Your task to perform on an android device: Go to internet settings Image 0: 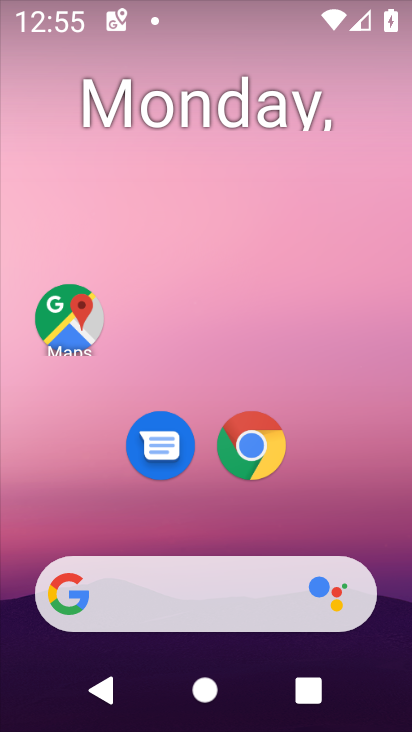
Step 0: drag from (395, 437) to (200, 7)
Your task to perform on an android device: Go to internet settings Image 1: 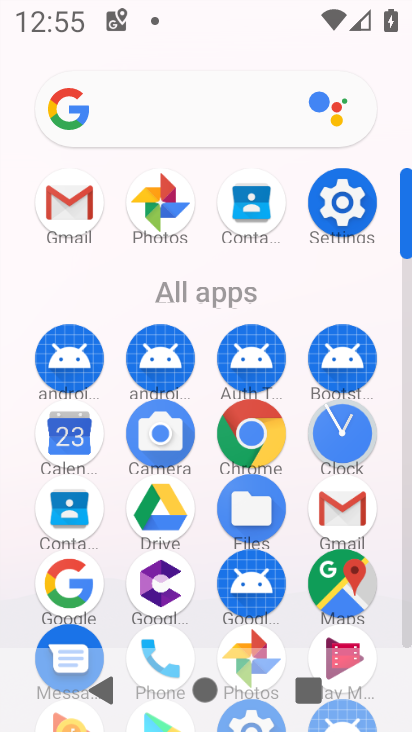
Step 1: click (341, 205)
Your task to perform on an android device: Go to internet settings Image 2: 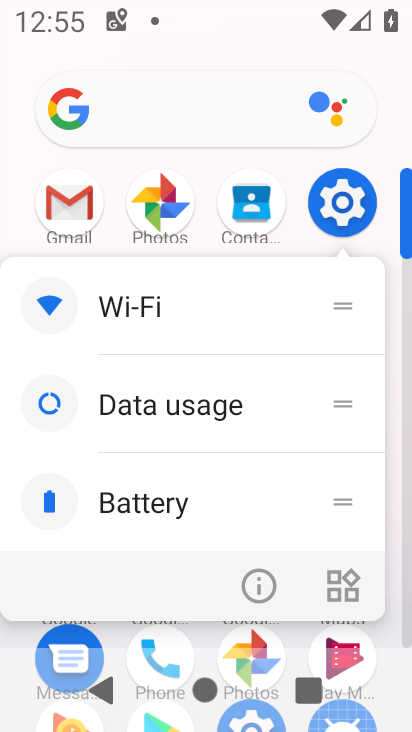
Step 2: click (342, 203)
Your task to perform on an android device: Go to internet settings Image 3: 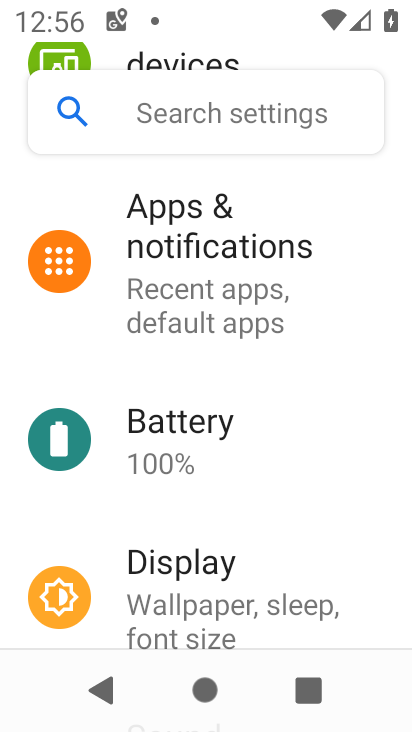
Step 3: drag from (279, 354) to (310, 698)
Your task to perform on an android device: Go to internet settings Image 4: 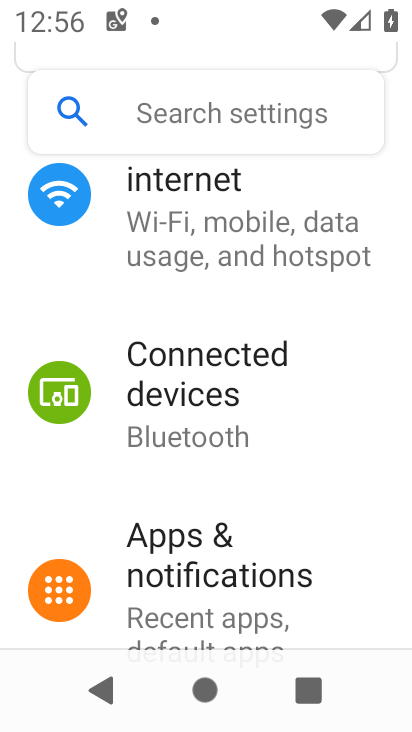
Step 4: drag from (306, 304) to (280, 400)
Your task to perform on an android device: Go to internet settings Image 5: 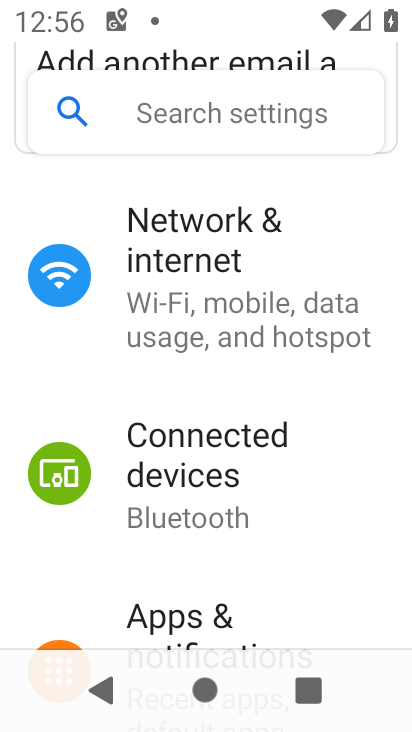
Step 5: click (195, 222)
Your task to perform on an android device: Go to internet settings Image 6: 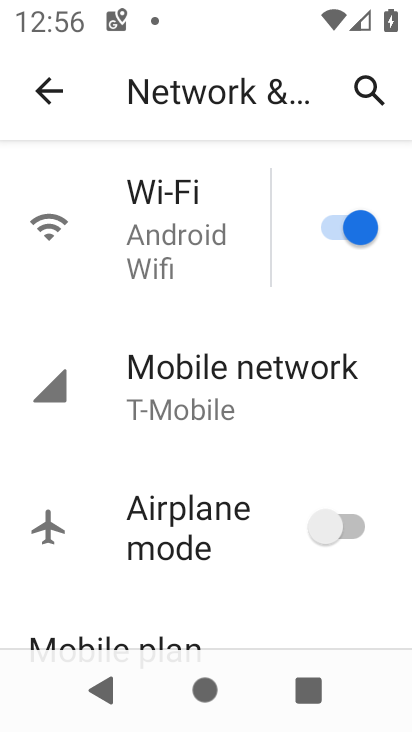
Step 6: click (195, 223)
Your task to perform on an android device: Go to internet settings Image 7: 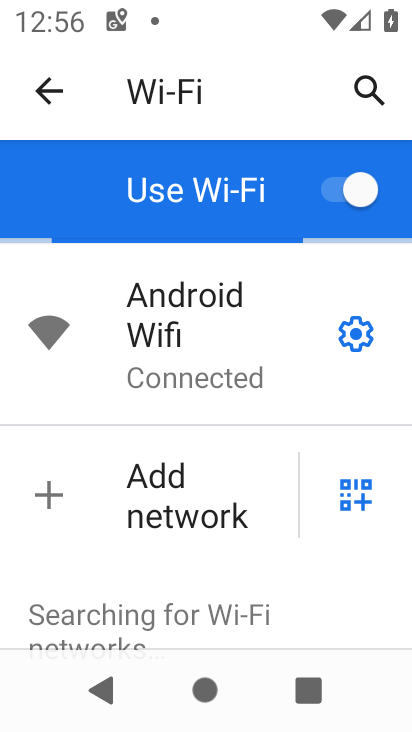
Step 7: click (345, 349)
Your task to perform on an android device: Go to internet settings Image 8: 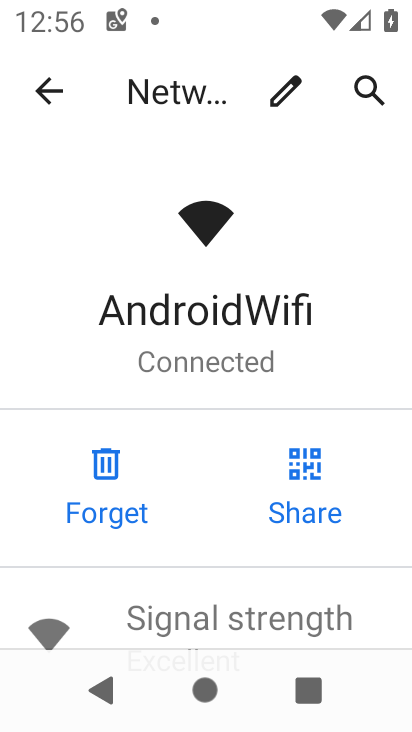
Step 8: task complete